Your task to perform on an android device: Go to CNN.com Image 0: 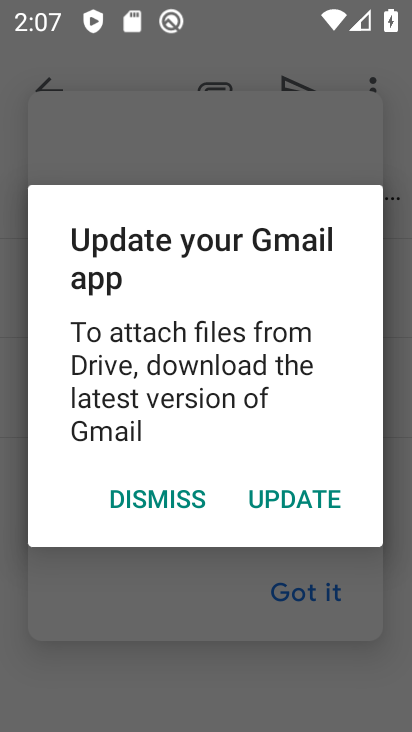
Step 0: press home button
Your task to perform on an android device: Go to CNN.com Image 1: 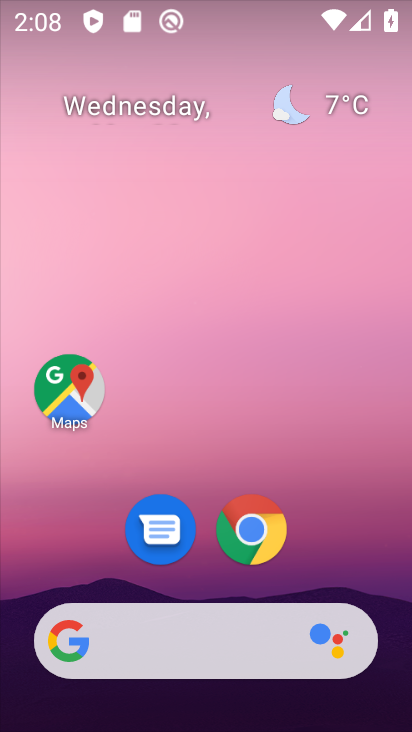
Step 1: click (250, 529)
Your task to perform on an android device: Go to CNN.com Image 2: 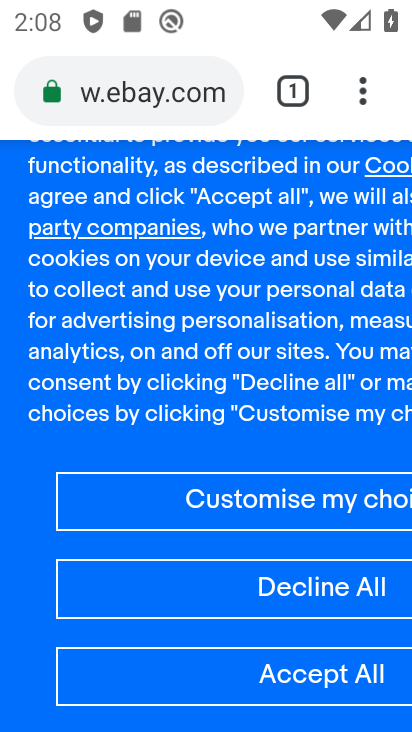
Step 2: click (167, 93)
Your task to perform on an android device: Go to CNN.com Image 3: 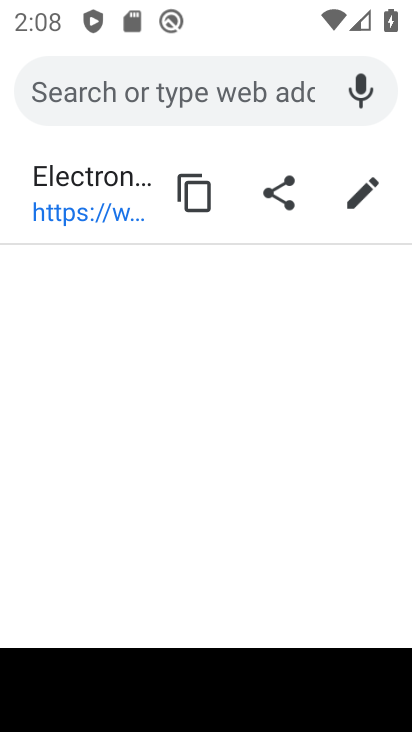
Step 3: type "cnn"
Your task to perform on an android device: Go to CNN.com Image 4: 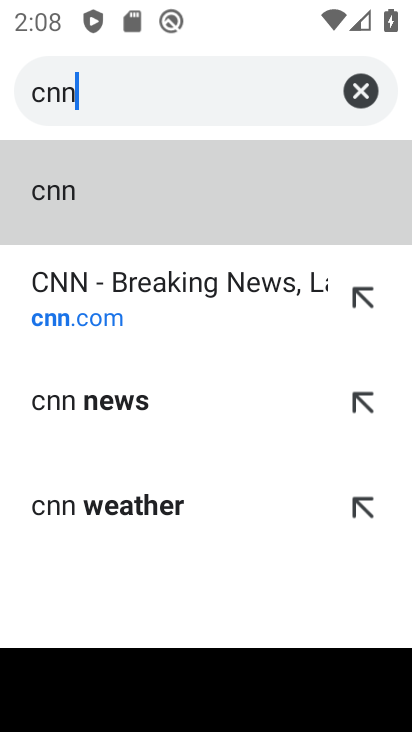
Step 4: click (96, 303)
Your task to perform on an android device: Go to CNN.com Image 5: 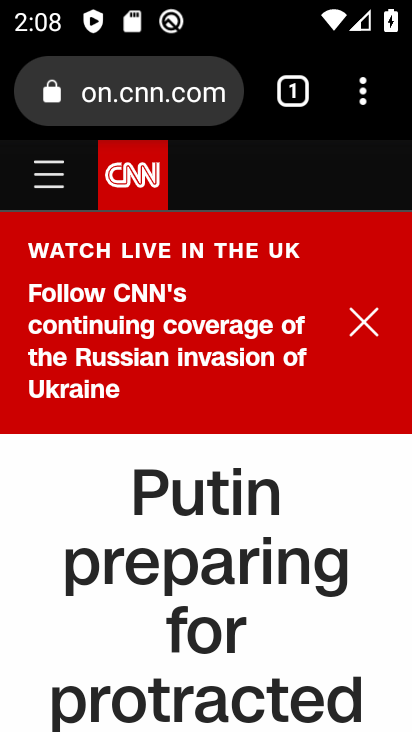
Step 5: task complete